Your task to perform on an android device: Search for vegetarian restaurants on Maps Image 0: 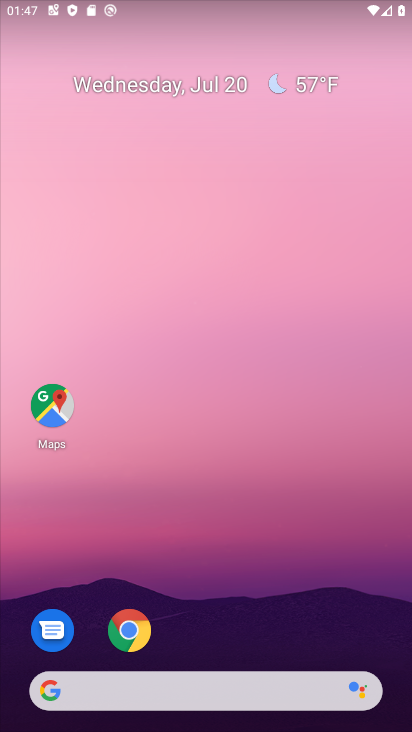
Step 0: drag from (246, 451) to (267, 13)
Your task to perform on an android device: Search for vegetarian restaurants on Maps Image 1: 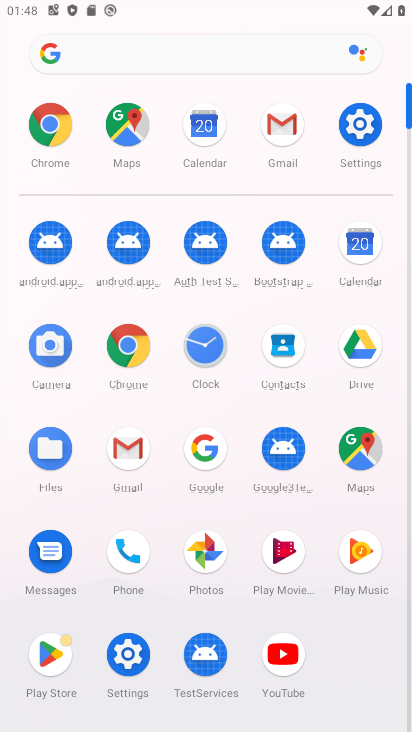
Step 1: click (370, 451)
Your task to perform on an android device: Search for vegetarian restaurants on Maps Image 2: 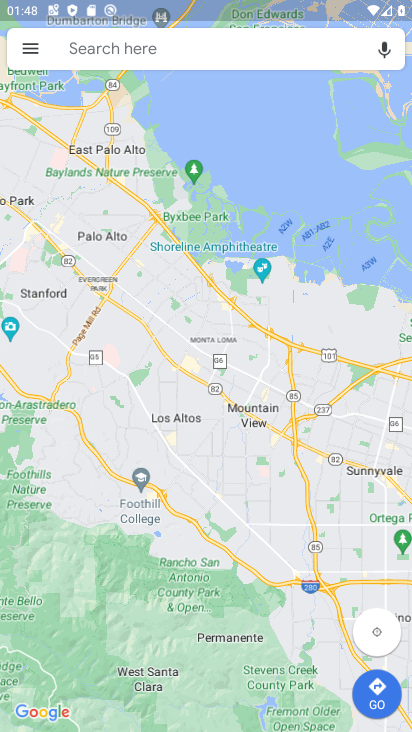
Step 2: click (109, 60)
Your task to perform on an android device: Search for vegetarian restaurants on Maps Image 3: 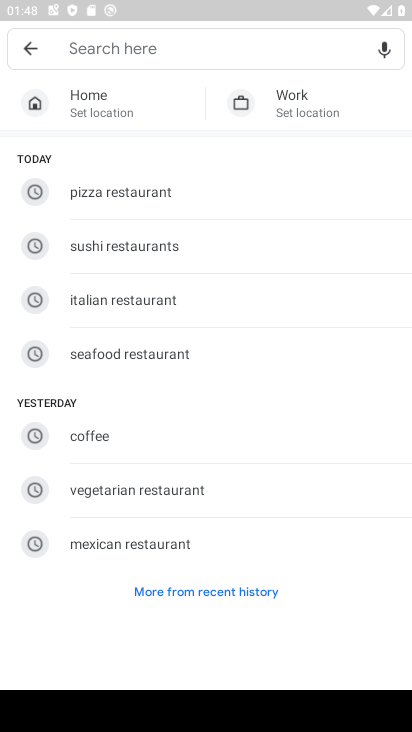
Step 3: type "vegetarian restaurants"
Your task to perform on an android device: Search for vegetarian restaurants on Maps Image 4: 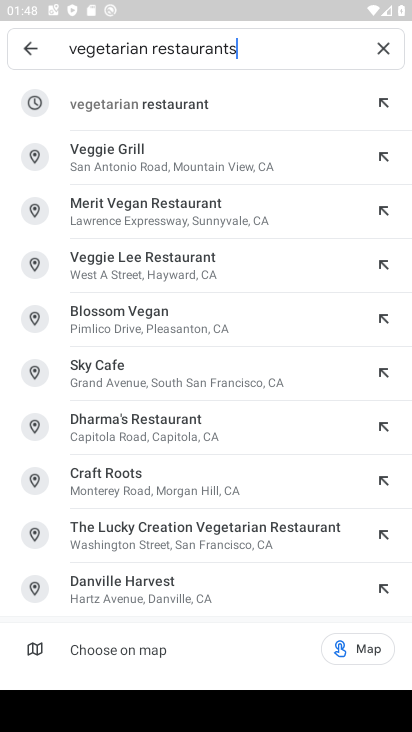
Step 4: press enter
Your task to perform on an android device: Search for vegetarian restaurants on Maps Image 5: 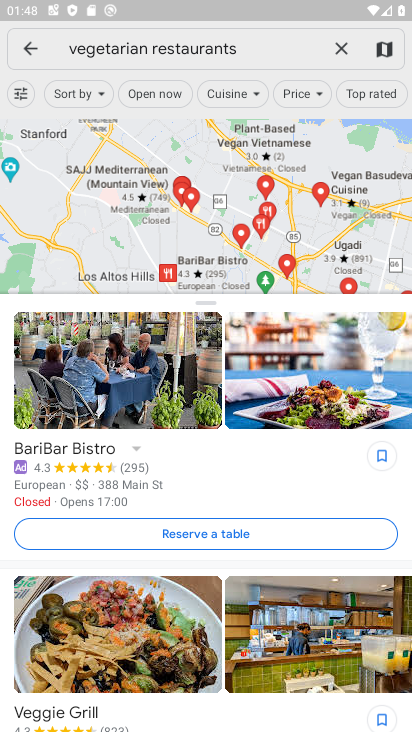
Step 5: task complete